Your task to perform on an android device: Search for seafood restaurants on Google Maps Image 0: 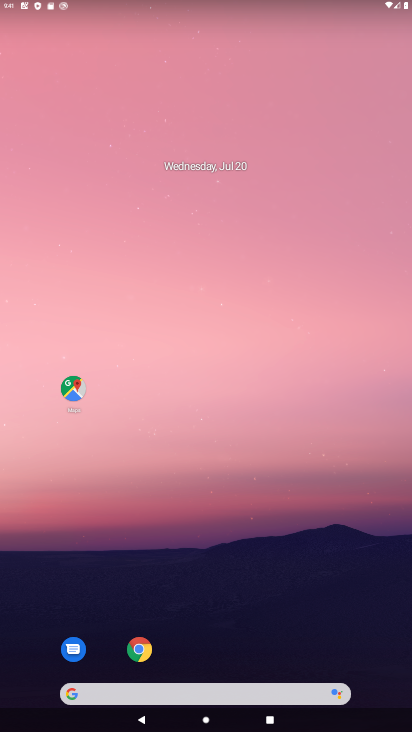
Step 0: drag from (227, 643) to (220, 124)
Your task to perform on an android device: Search for seafood restaurants on Google Maps Image 1: 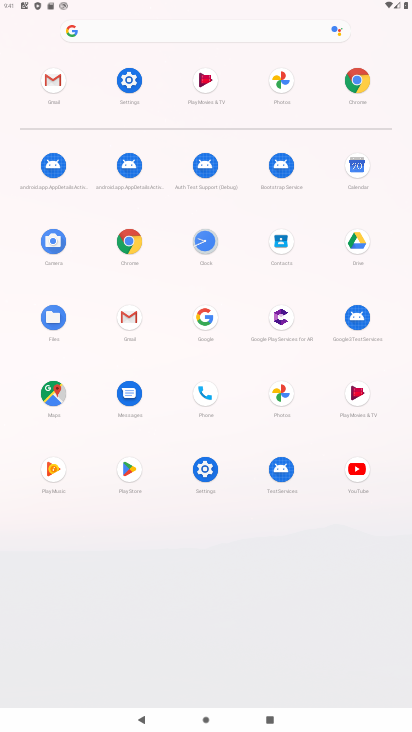
Step 1: click (34, 397)
Your task to perform on an android device: Search for seafood restaurants on Google Maps Image 2: 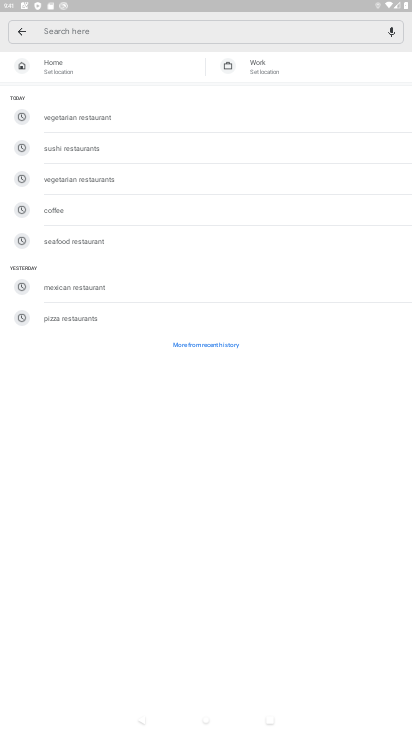
Step 2: click (207, 32)
Your task to perform on an android device: Search for seafood restaurants on Google Maps Image 3: 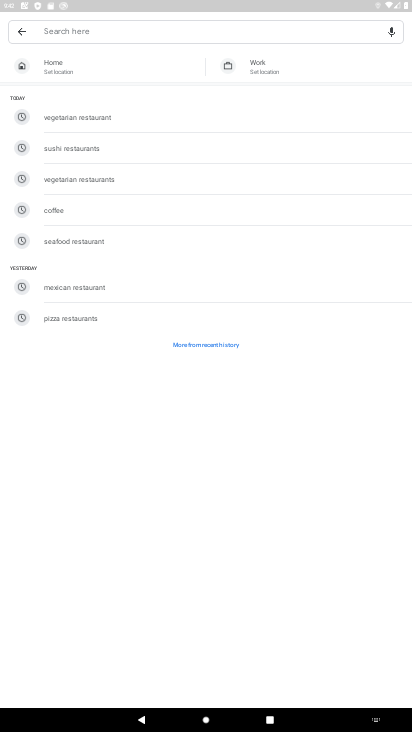
Step 3: click (108, 231)
Your task to perform on an android device: Search for seafood restaurants on Google Maps Image 4: 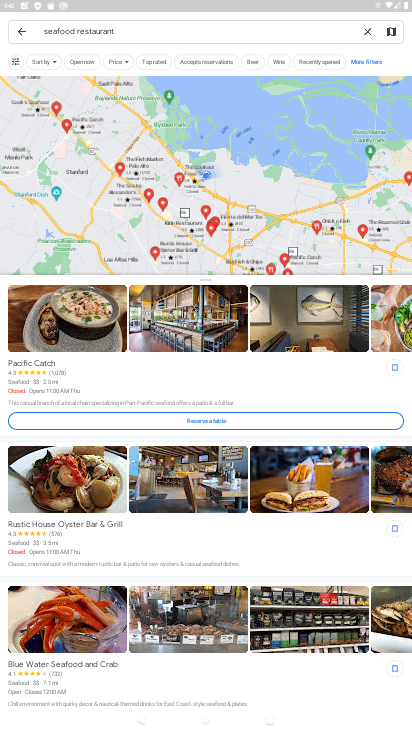
Step 4: task complete